Your task to perform on an android device: change the clock display to show seconds Image 0: 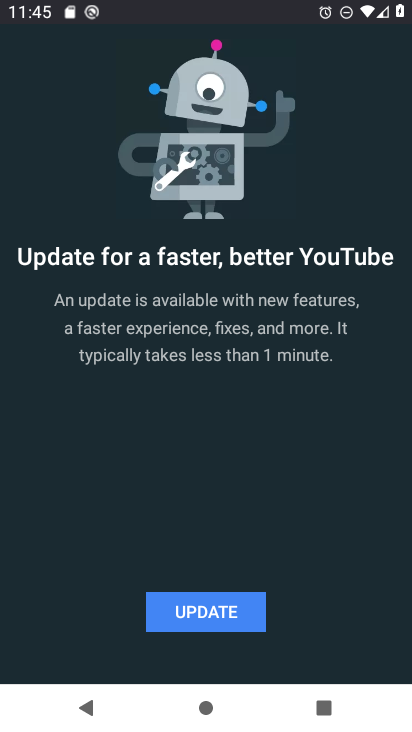
Step 0: press home button
Your task to perform on an android device: change the clock display to show seconds Image 1: 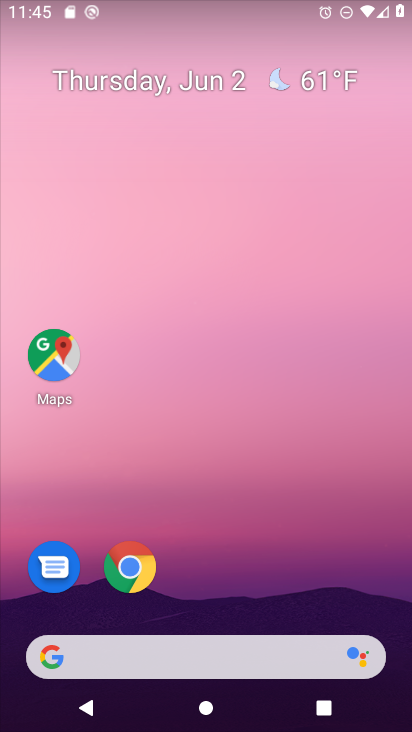
Step 1: drag from (260, 536) to (217, 74)
Your task to perform on an android device: change the clock display to show seconds Image 2: 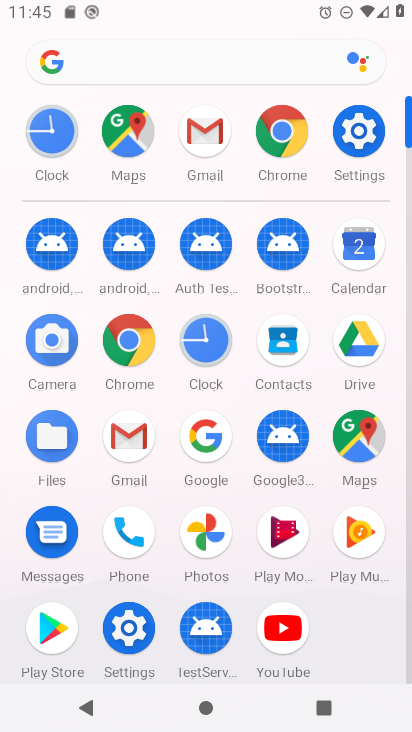
Step 2: click (205, 338)
Your task to perform on an android device: change the clock display to show seconds Image 3: 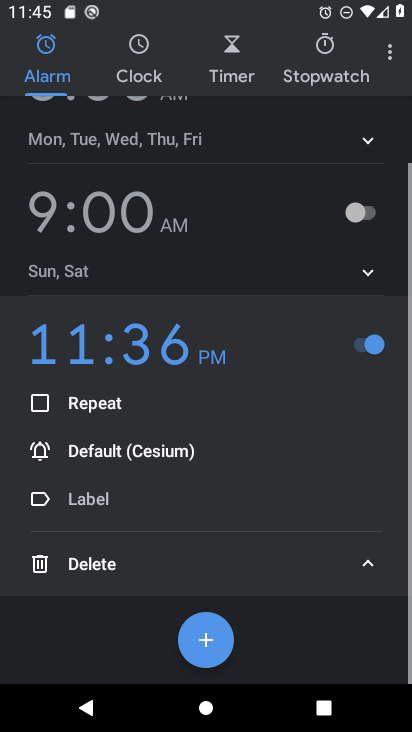
Step 3: click (382, 48)
Your task to perform on an android device: change the clock display to show seconds Image 4: 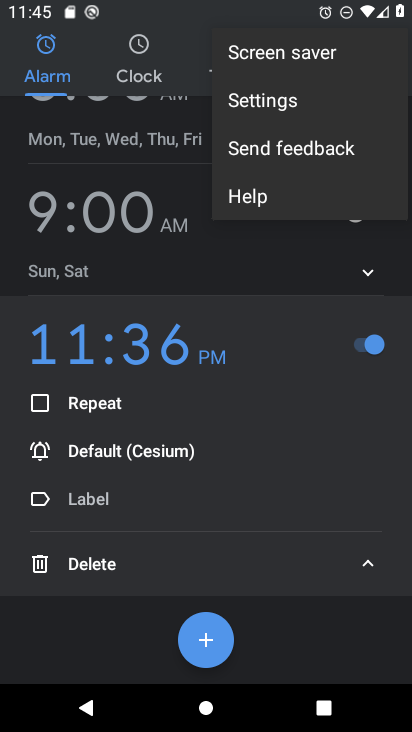
Step 4: click (290, 102)
Your task to perform on an android device: change the clock display to show seconds Image 5: 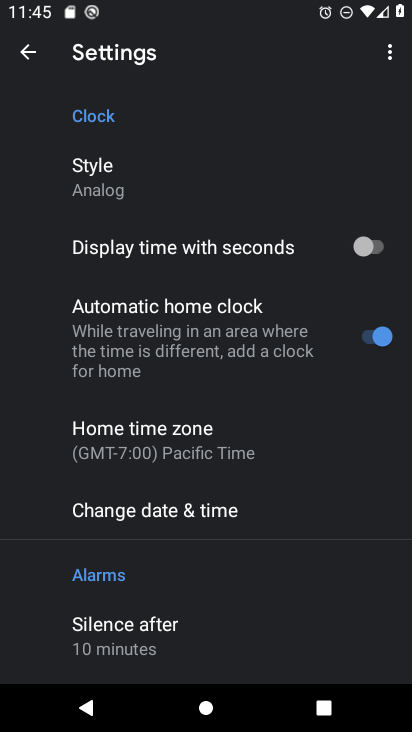
Step 5: click (342, 243)
Your task to perform on an android device: change the clock display to show seconds Image 6: 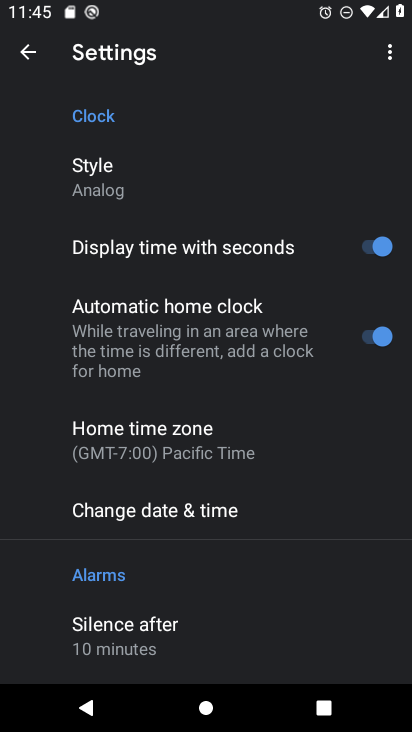
Step 6: task complete